Your task to perform on an android device: Google the capital of Panama Image 0: 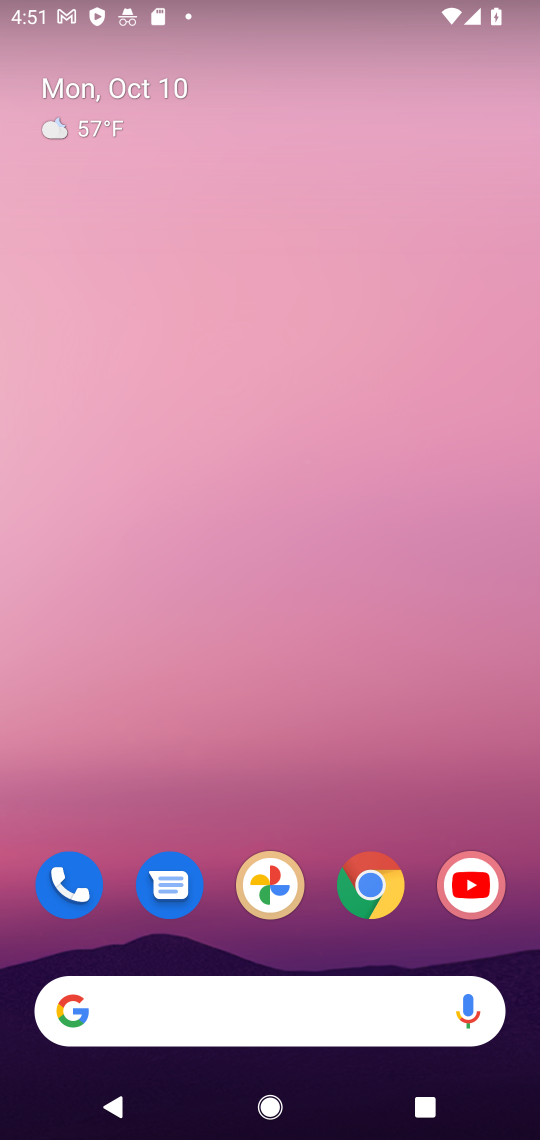
Step 0: click (344, 1025)
Your task to perform on an android device: Google the capital of Panama Image 1: 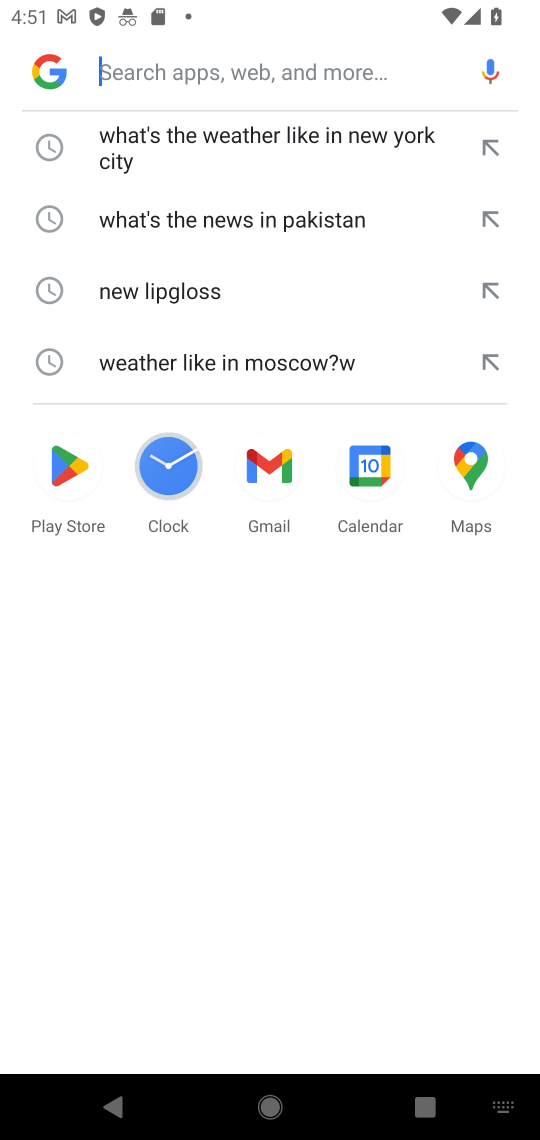
Step 1: type "capital of panama"
Your task to perform on an android device: Google the capital of Panama Image 2: 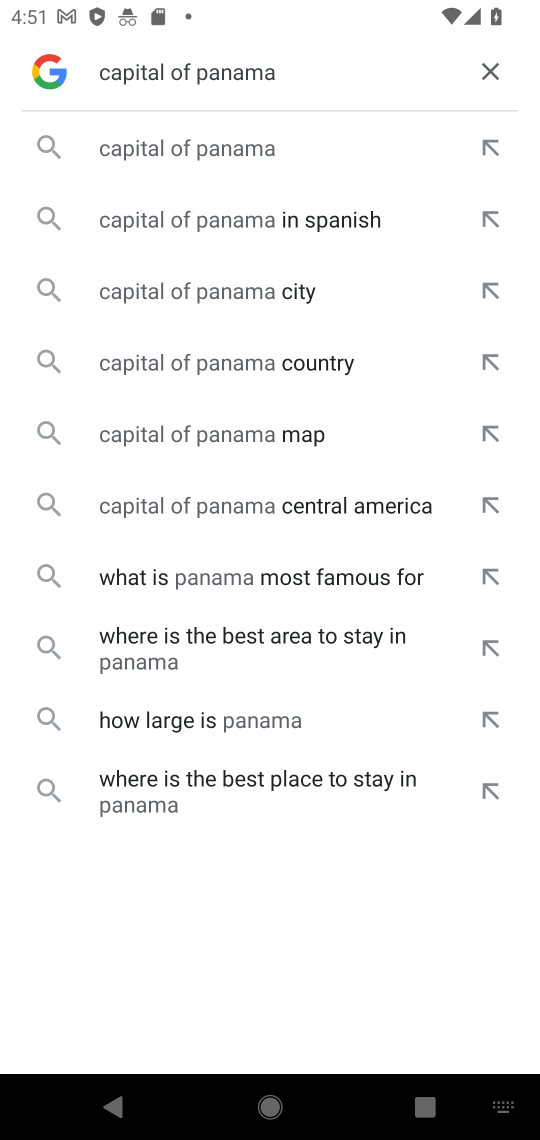
Step 2: click (181, 148)
Your task to perform on an android device: Google the capital of Panama Image 3: 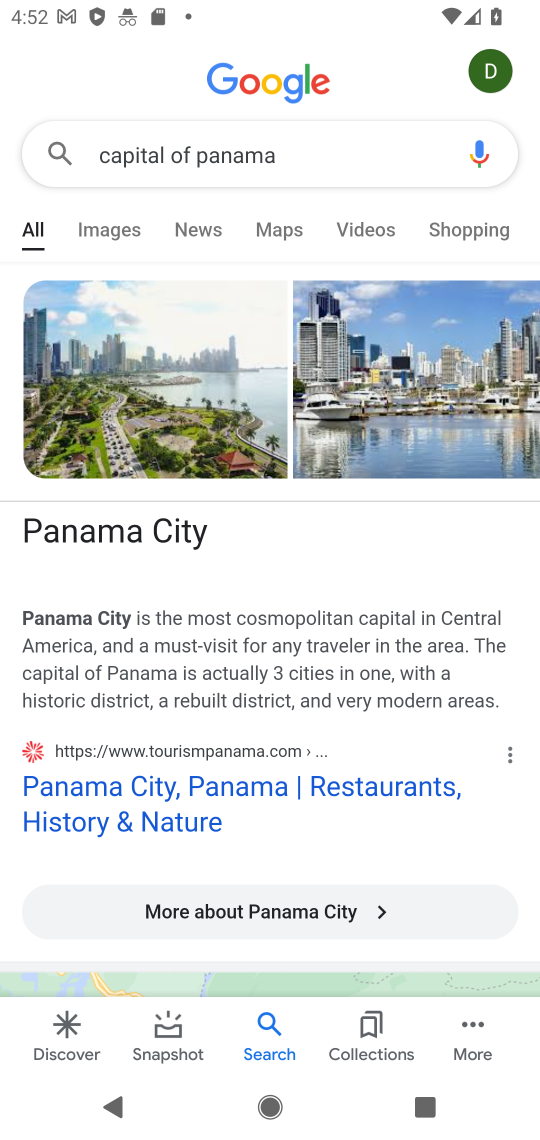
Step 3: task complete